Your task to perform on an android device: open wifi settings Image 0: 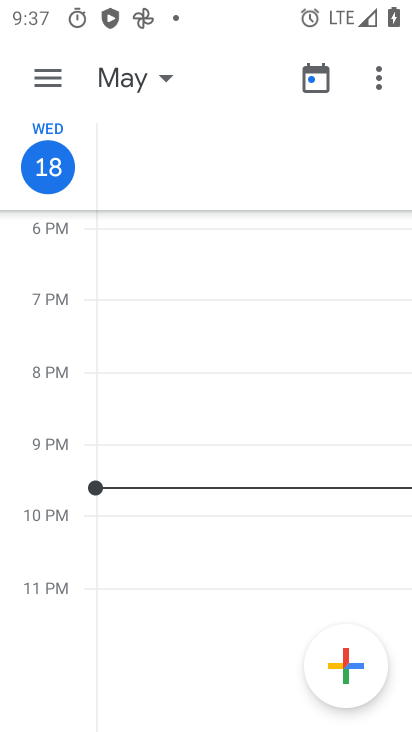
Step 0: press back button
Your task to perform on an android device: open wifi settings Image 1: 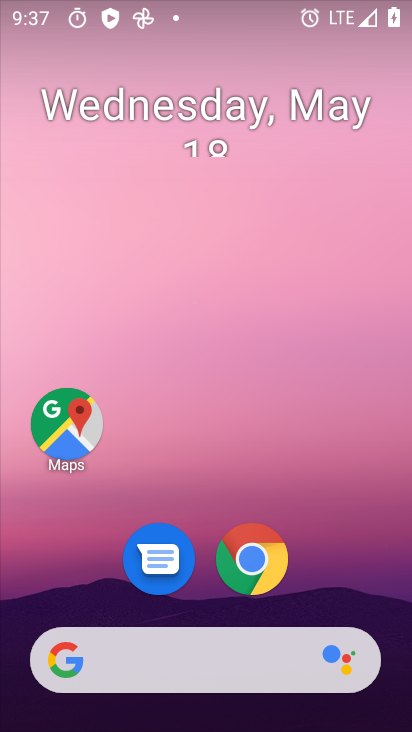
Step 1: drag from (339, 561) to (236, 23)
Your task to perform on an android device: open wifi settings Image 2: 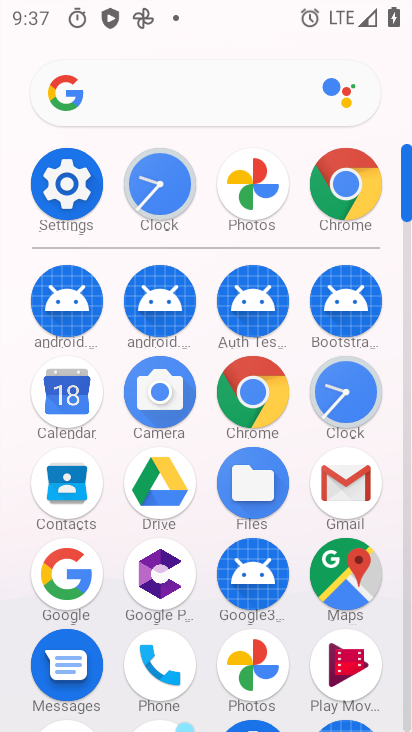
Step 2: click (66, 179)
Your task to perform on an android device: open wifi settings Image 3: 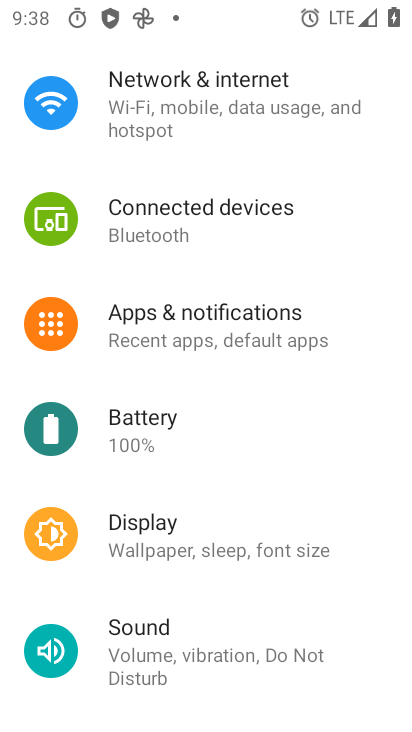
Step 3: click (174, 95)
Your task to perform on an android device: open wifi settings Image 4: 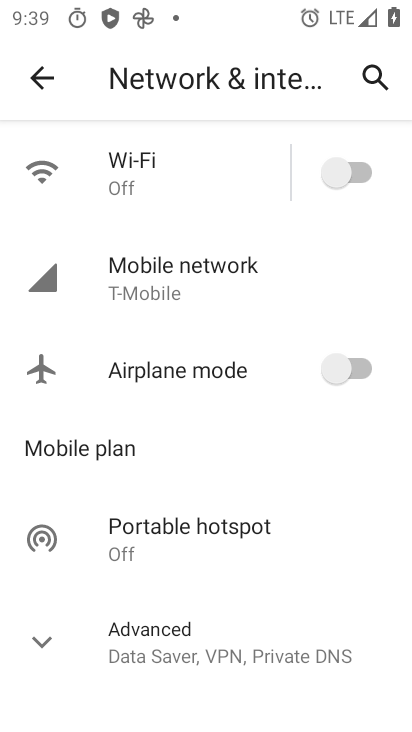
Step 4: click (134, 179)
Your task to perform on an android device: open wifi settings Image 5: 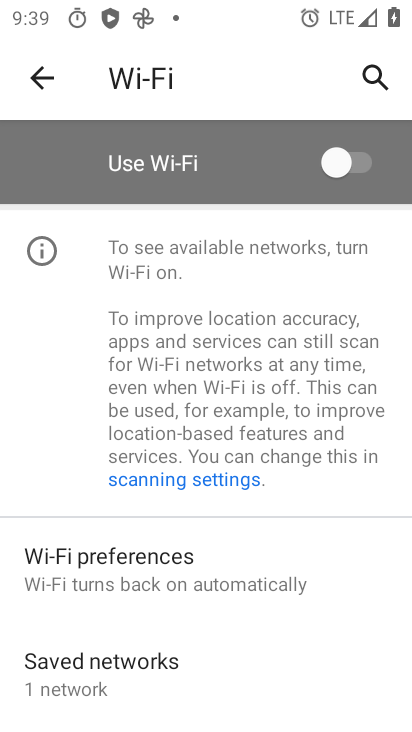
Step 5: task complete